Your task to perform on an android device: install app "Google Calendar" Image 0: 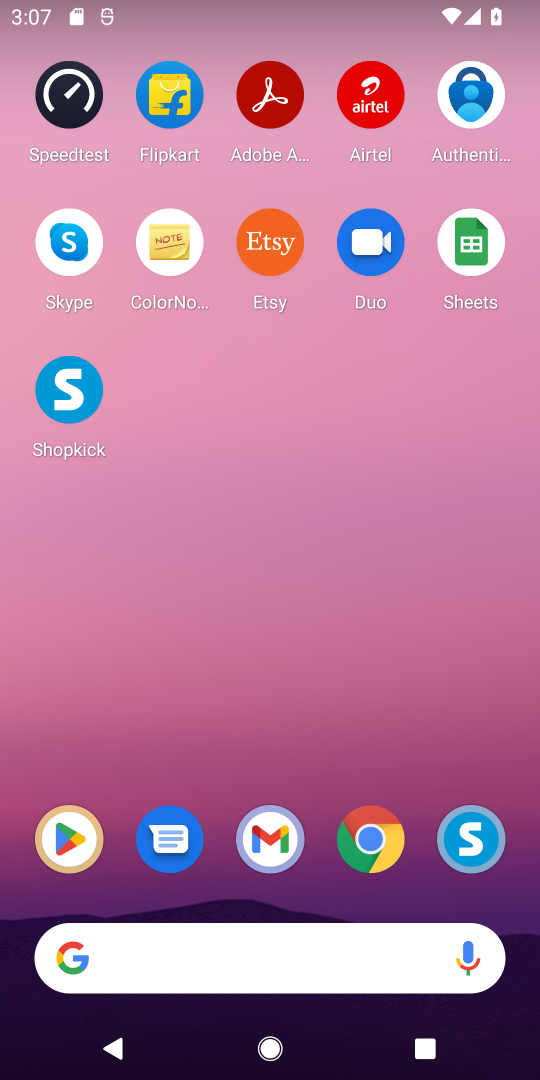
Step 0: drag from (334, 900) to (331, 246)
Your task to perform on an android device: install app "Google Calendar" Image 1: 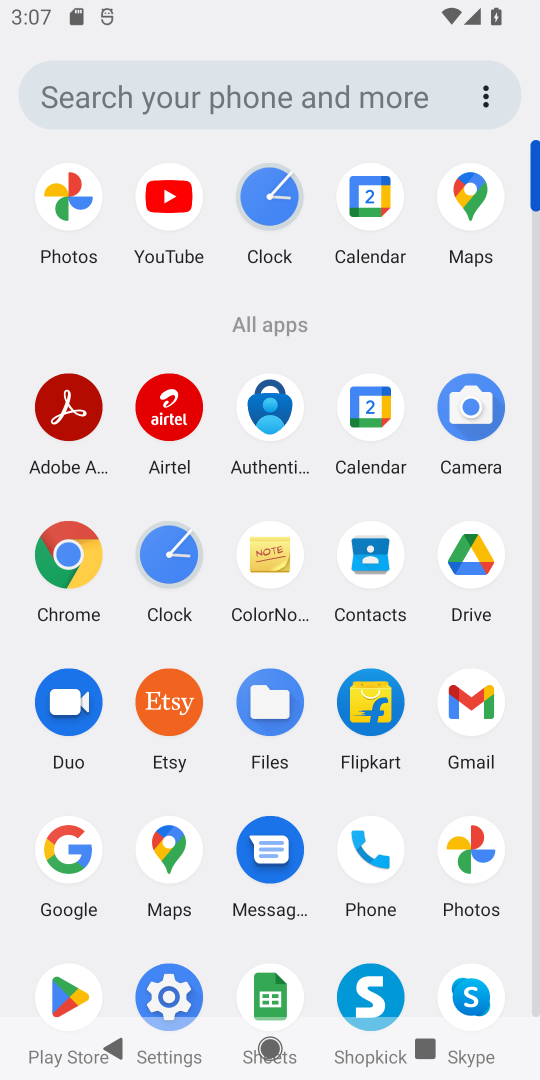
Step 1: click (395, 437)
Your task to perform on an android device: install app "Google Calendar" Image 2: 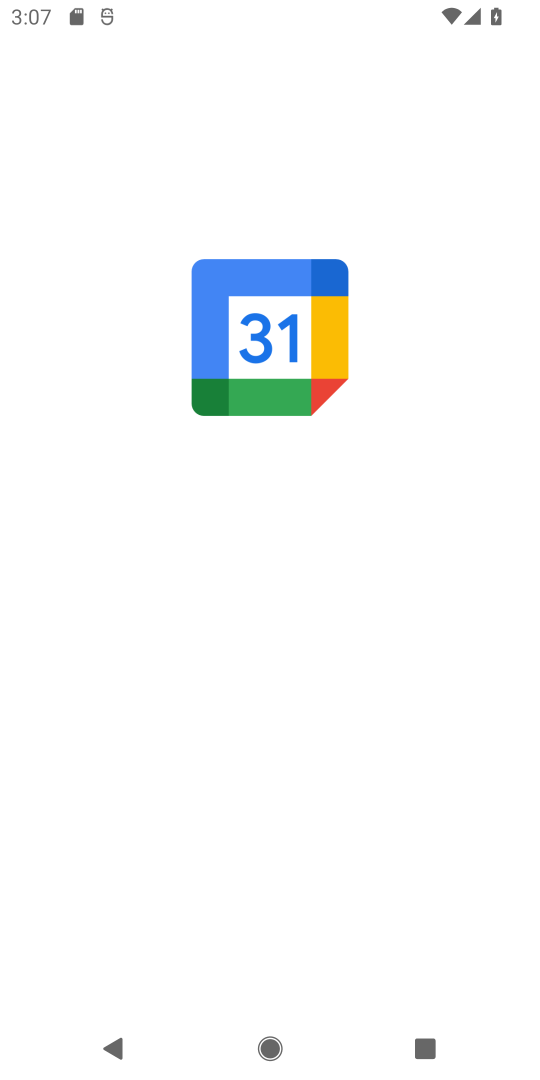
Step 2: task complete